Your task to perform on an android device: What's on my calendar today? Image 0: 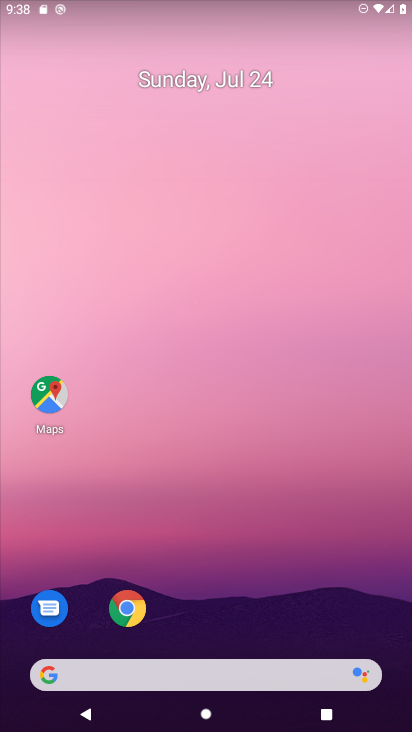
Step 0: drag from (170, 566) to (226, 132)
Your task to perform on an android device: What's on my calendar today? Image 1: 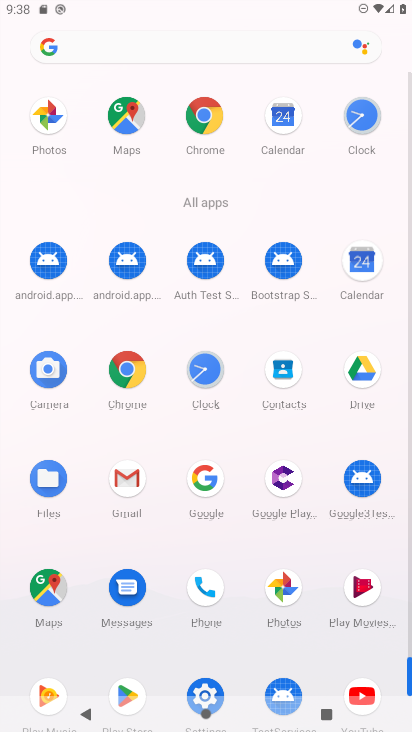
Step 1: click (359, 251)
Your task to perform on an android device: What's on my calendar today? Image 2: 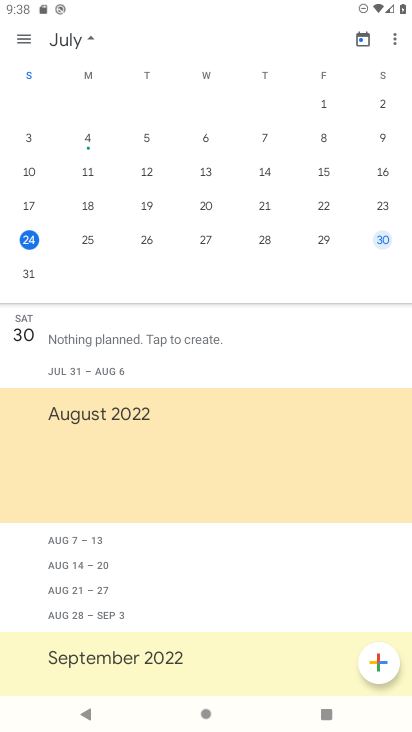
Step 2: click (363, 42)
Your task to perform on an android device: What's on my calendar today? Image 3: 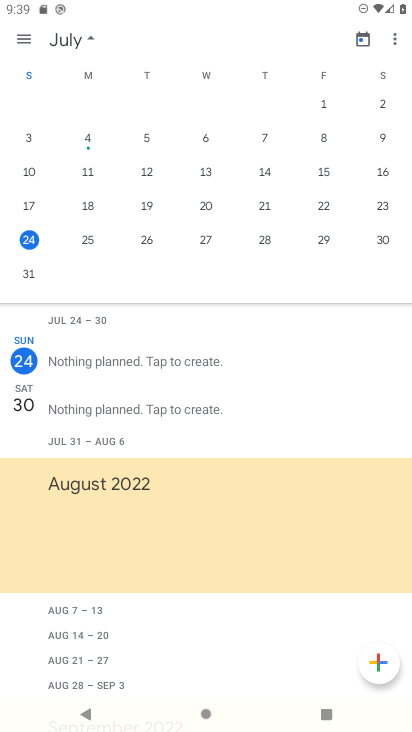
Step 3: task complete